Your task to perform on an android device: open app "Flipkart Online Shopping App" (install if not already installed), go to login, and select forgot password Image 0: 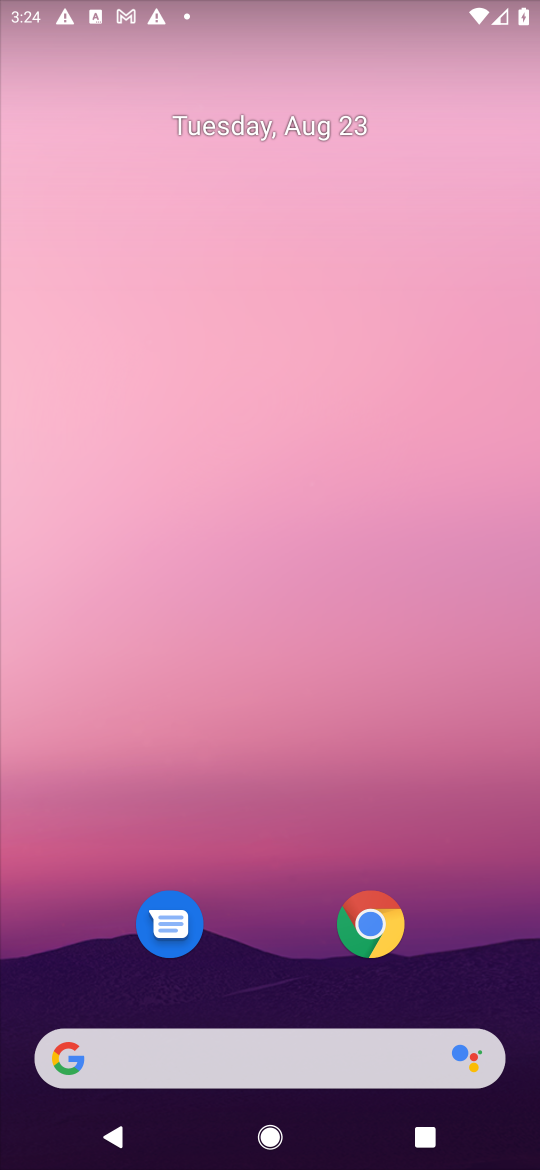
Step 0: press home button
Your task to perform on an android device: open app "Flipkart Online Shopping App" (install if not already installed), go to login, and select forgot password Image 1: 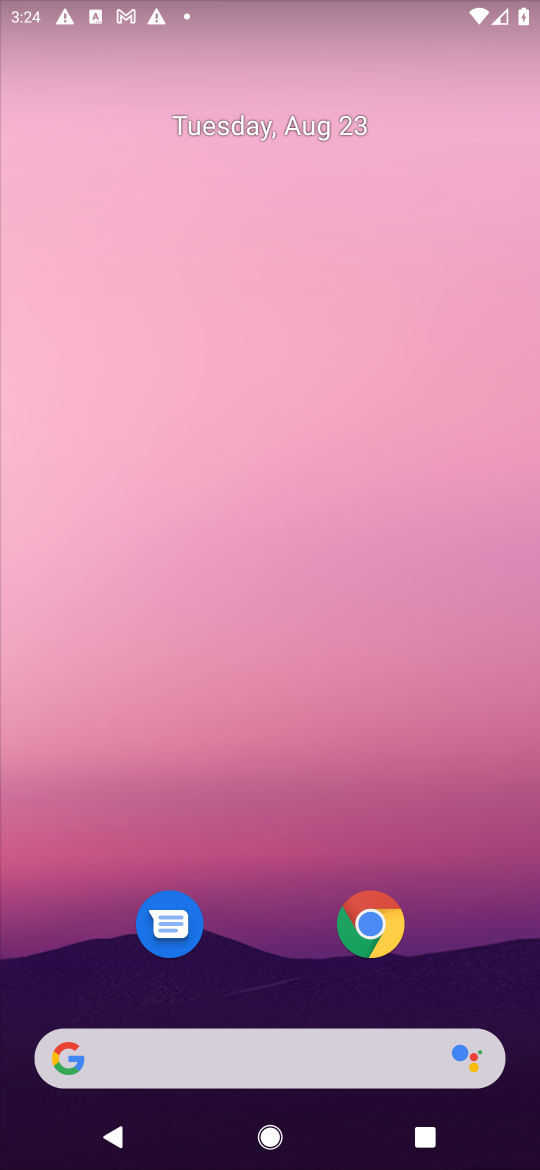
Step 1: drag from (484, 944) to (506, 151)
Your task to perform on an android device: open app "Flipkart Online Shopping App" (install if not already installed), go to login, and select forgot password Image 2: 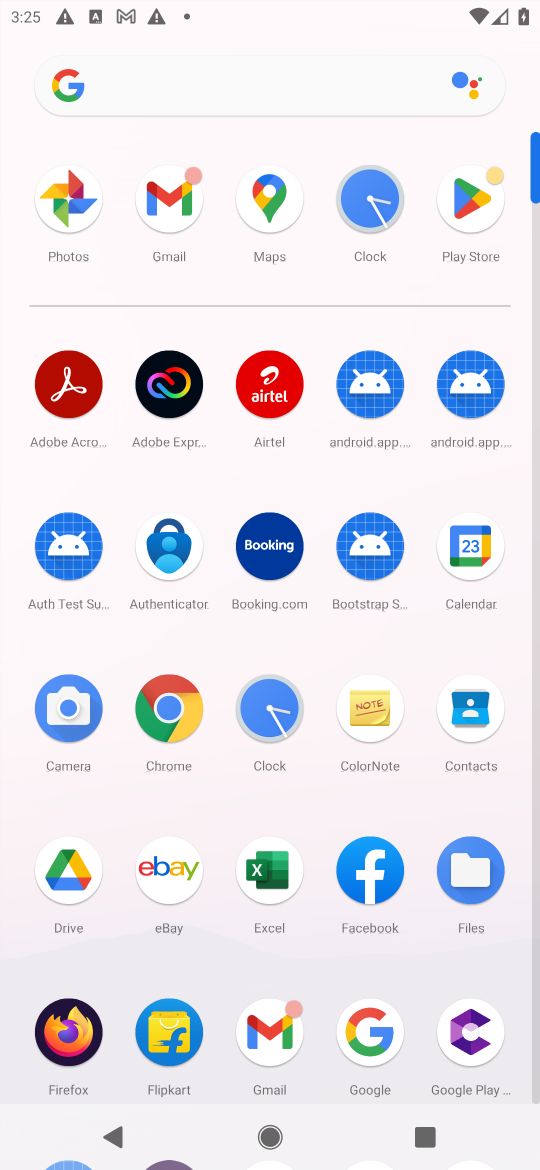
Step 2: click (473, 203)
Your task to perform on an android device: open app "Flipkart Online Shopping App" (install if not already installed), go to login, and select forgot password Image 3: 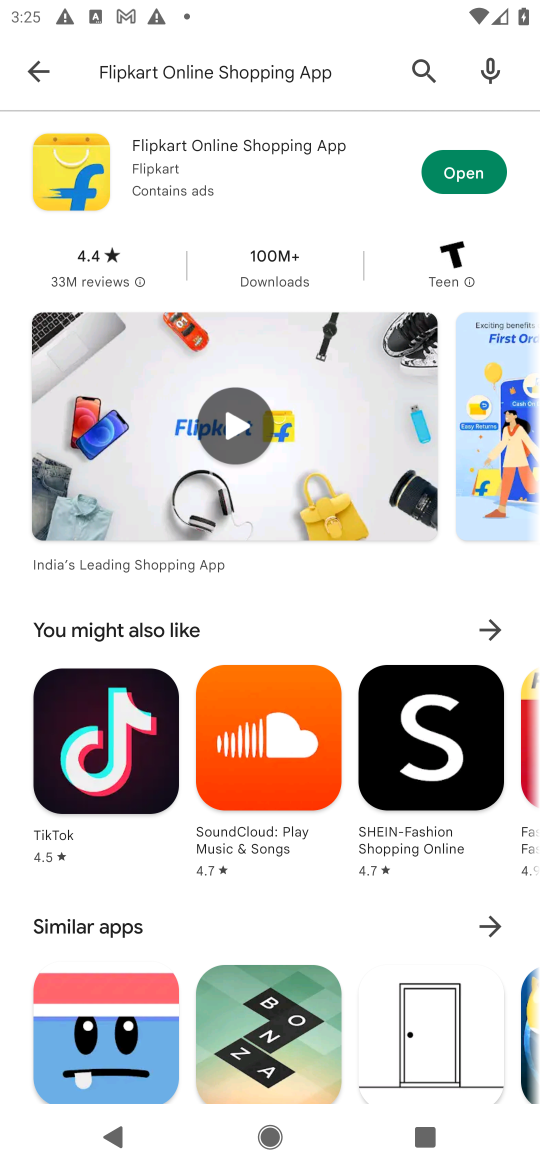
Step 3: press back button
Your task to perform on an android device: open app "Flipkart Online Shopping App" (install if not already installed), go to login, and select forgot password Image 4: 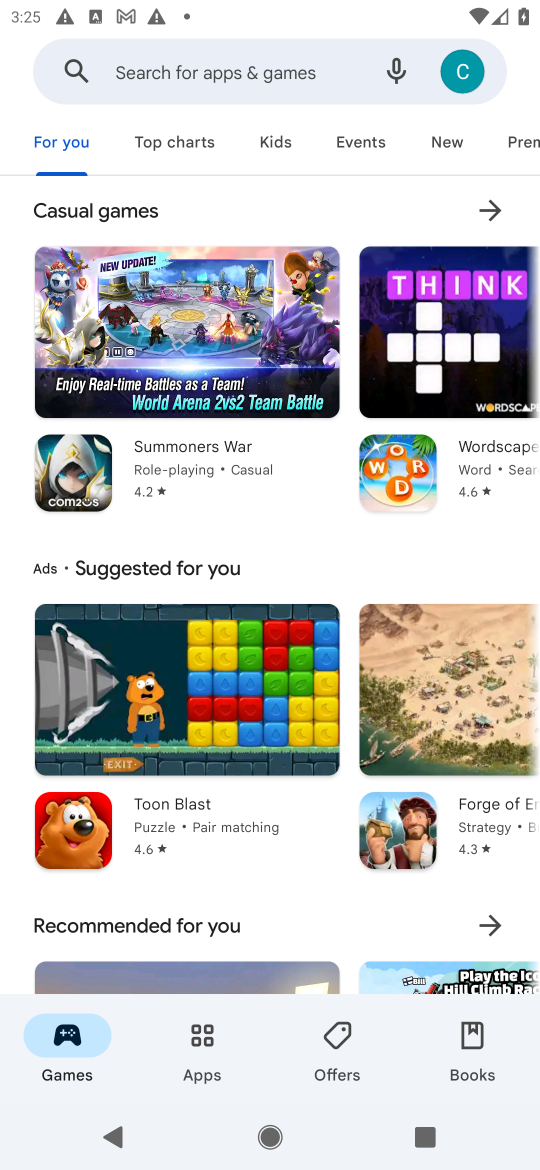
Step 4: press enter
Your task to perform on an android device: open app "Flipkart Online Shopping App" (install if not already installed), go to login, and select forgot password Image 5: 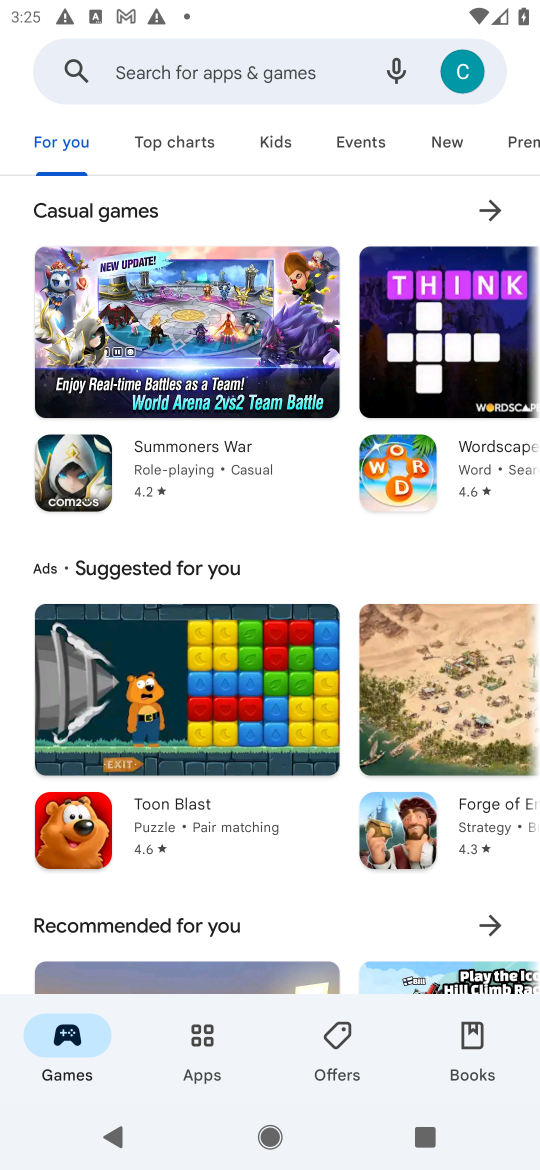
Step 5: type "Flipkart Online Shopping App"
Your task to perform on an android device: open app "Flipkart Online Shopping App" (install if not already installed), go to login, and select forgot password Image 6: 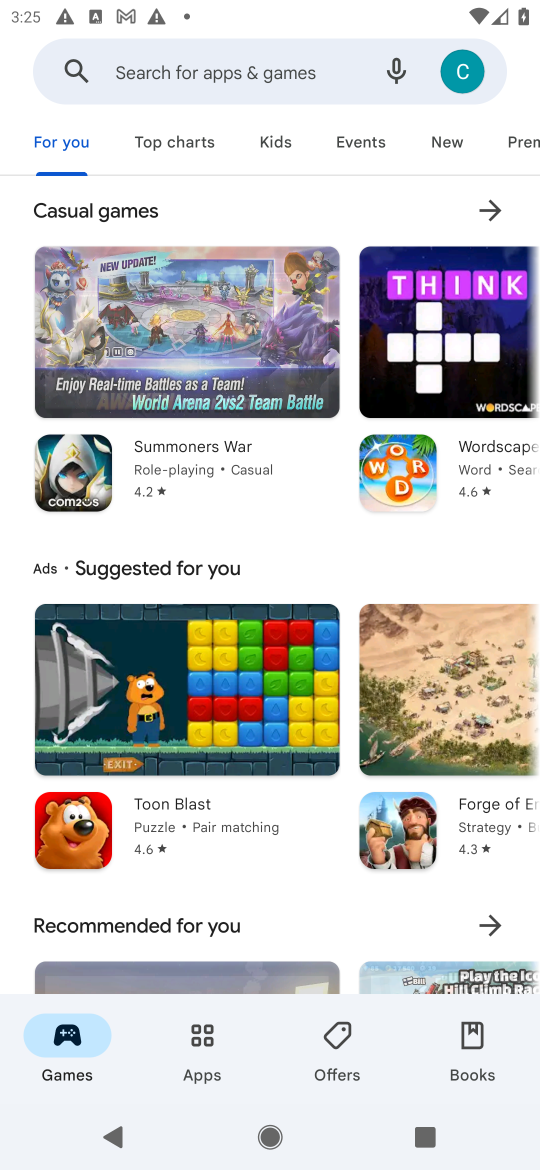
Step 6: click (176, 78)
Your task to perform on an android device: open app "Flipkart Online Shopping App" (install if not already installed), go to login, and select forgot password Image 7: 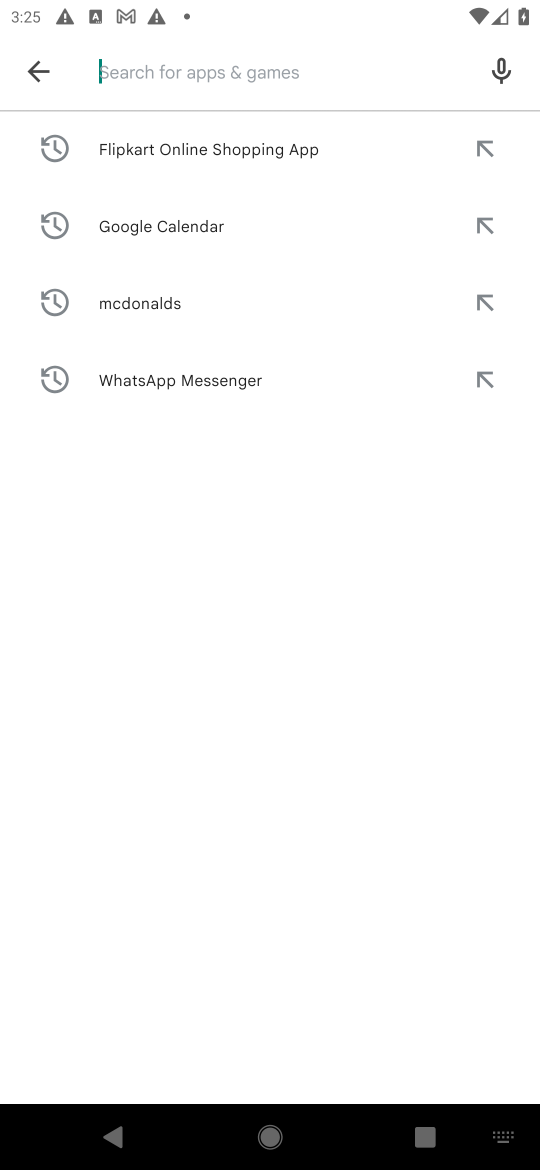
Step 7: press enter
Your task to perform on an android device: open app "Flipkart Online Shopping App" (install if not already installed), go to login, and select forgot password Image 8: 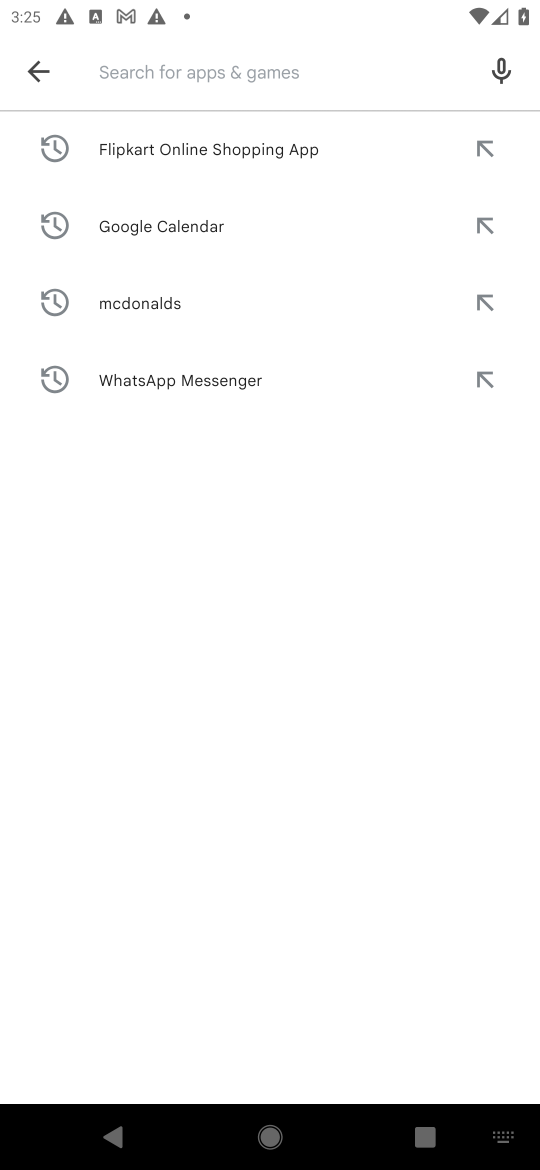
Step 8: type "Flipkart Online Shopping App"
Your task to perform on an android device: open app "Flipkart Online Shopping App" (install if not already installed), go to login, and select forgot password Image 9: 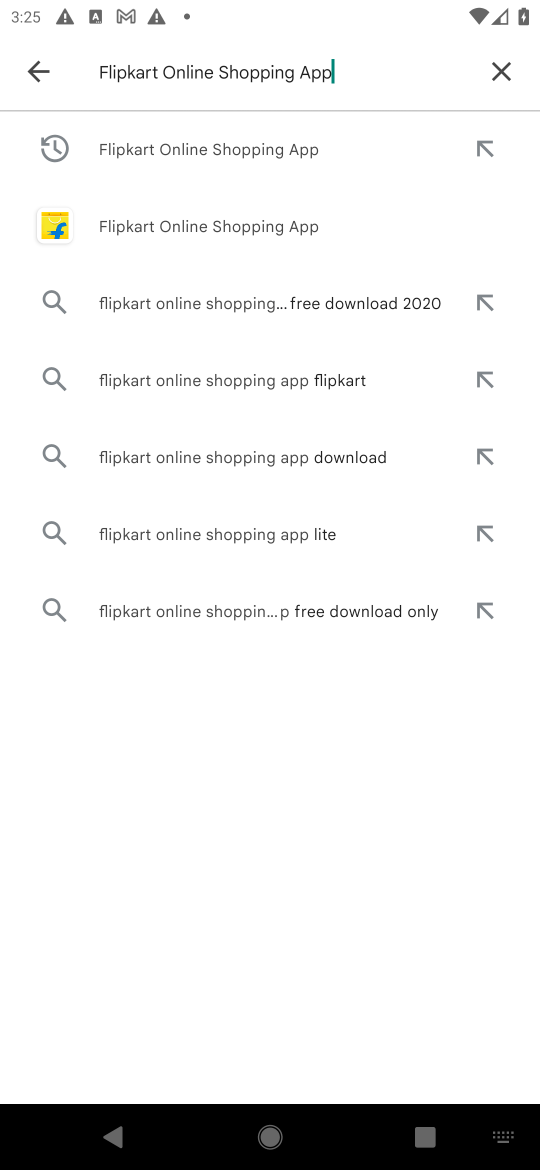
Step 9: click (318, 226)
Your task to perform on an android device: open app "Flipkart Online Shopping App" (install if not already installed), go to login, and select forgot password Image 10: 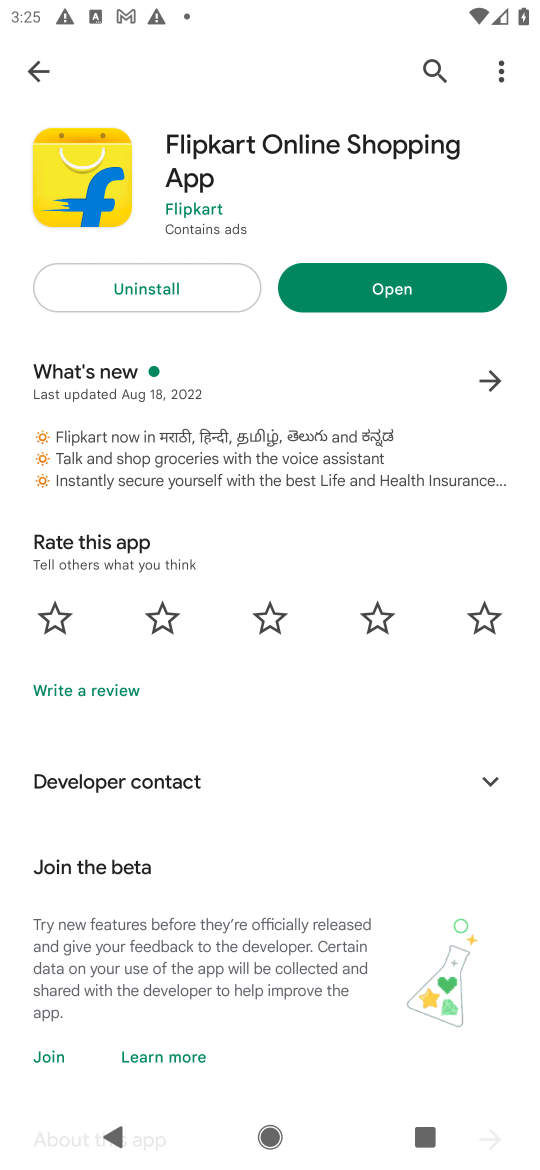
Step 10: click (414, 291)
Your task to perform on an android device: open app "Flipkart Online Shopping App" (install if not already installed), go to login, and select forgot password Image 11: 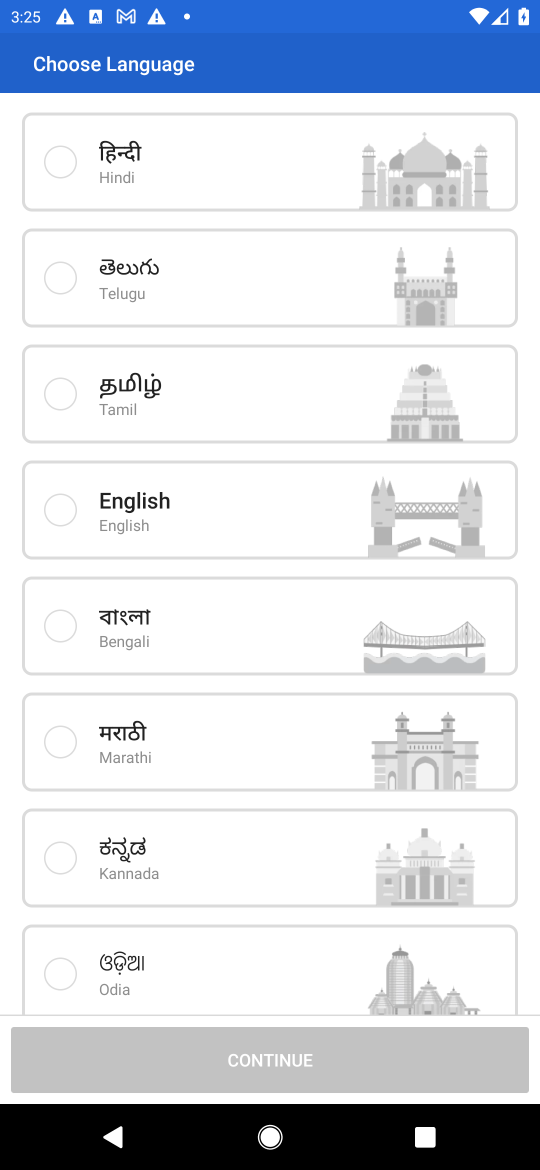
Step 11: click (312, 502)
Your task to perform on an android device: open app "Flipkart Online Shopping App" (install if not already installed), go to login, and select forgot password Image 12: 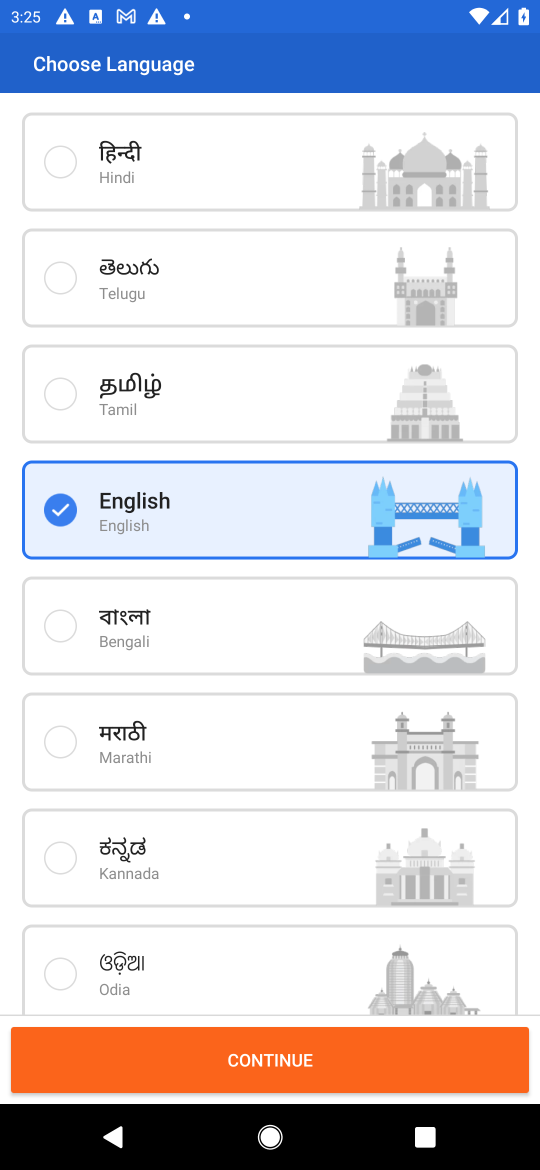
Step 12: click (329, 1066)
Your task to perform on an android device: open app "Flipkart Online Shopping App" (install if not already installed), go to login, and select forgot password Image 13: 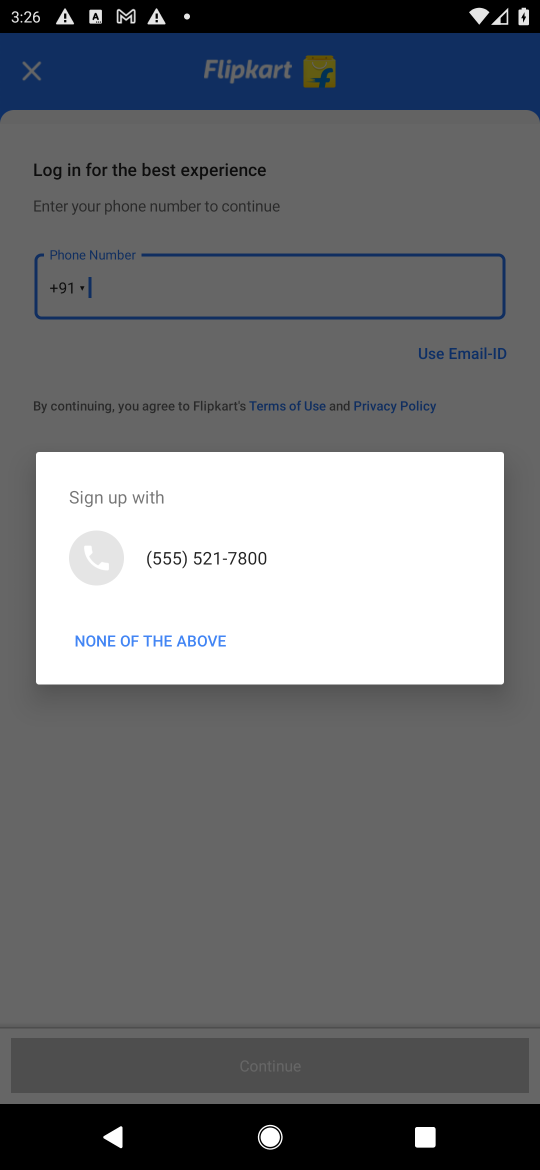
Step 13: task complete